Your task to perform on an android device: visit the assistant section in the google photos Image 0: 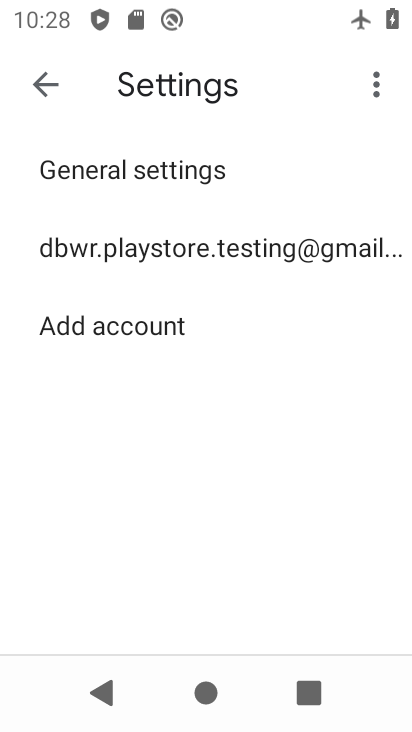
Step 0: press home button
Your task to perform on an android device: visit the assistant section in the google photos Image 1: 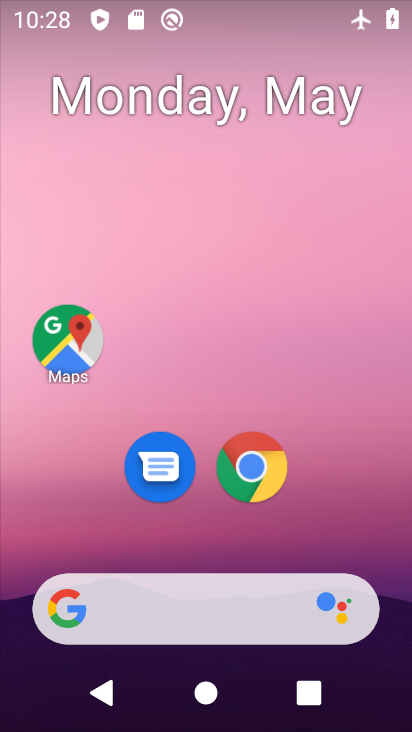
Step 1: drag from (228, 532) to (234, 61)
Your task to perform on an android device: visit the assistant section in the google photos Image 2: 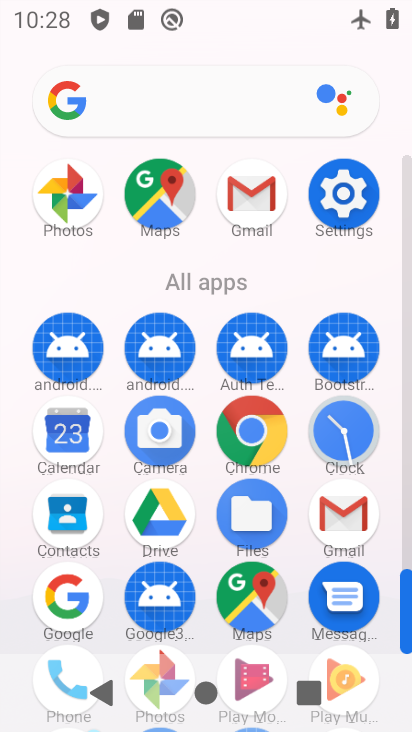
Step 2: drag from (300, 590) to (304, 282)
Your task to perform on an android device: visit the assistant section in the google photos Image 3: 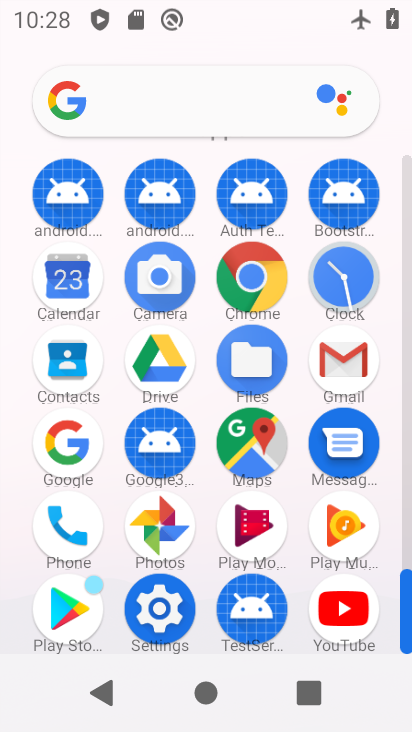
Step 3: click (154, 531)
Your task to perform on an android device: visit the assistant section in the google photos Image 4: 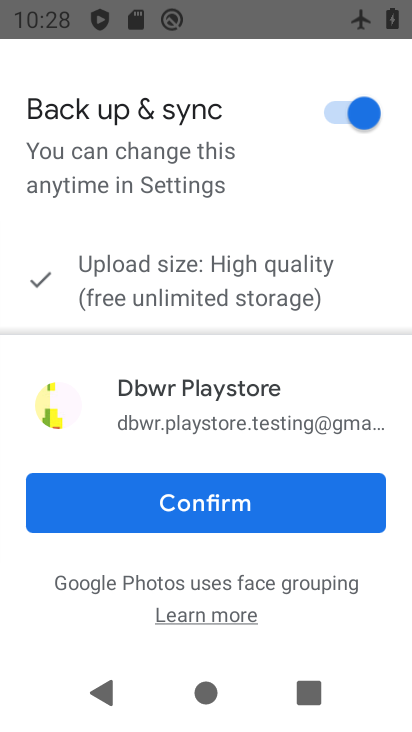
Step 4: click (245, 530)
Your task to perform on an android device: visit the assistant section in the google photos Image 5: 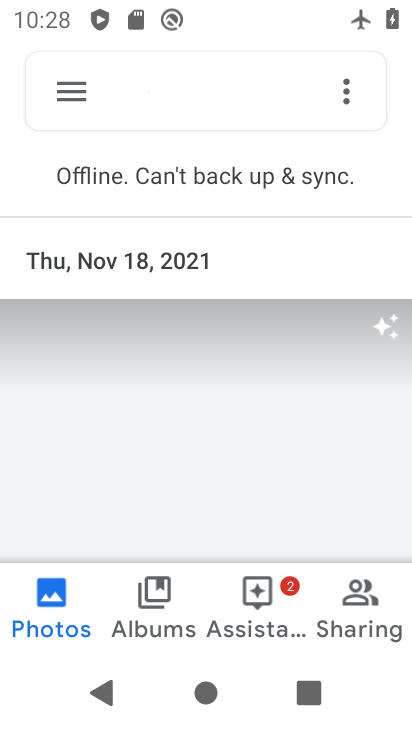
Step 5: click (247, 616)
Your task to perform on an android device: visit the assistant section in the google photos Image 6: 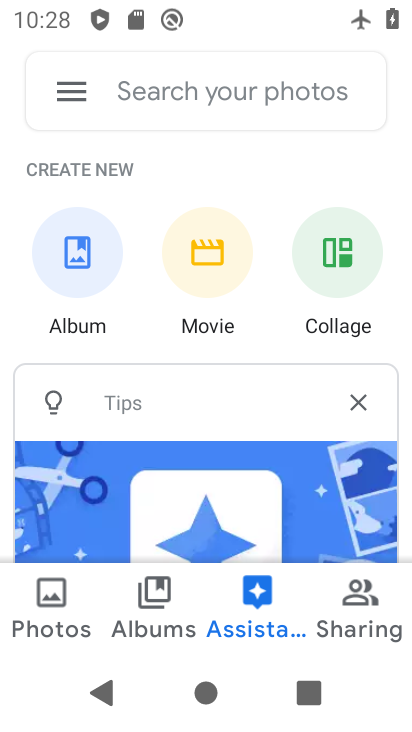
Step 6: task complete